Your task to perform on an android device: set an alarm Image 0: 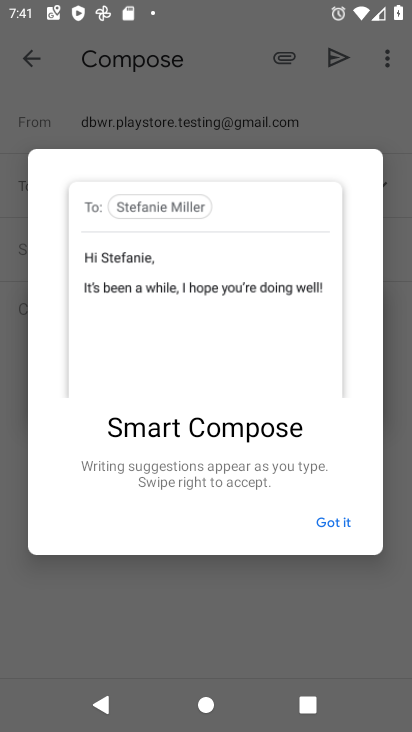
Step 0: press home button
Your task to perform on an android device: set an alarm Image 1: 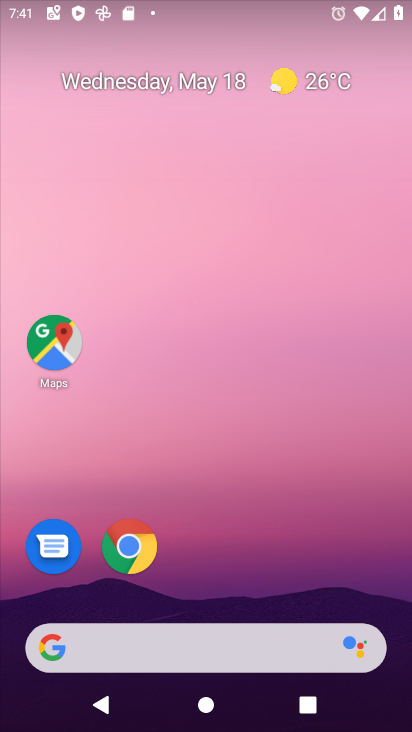
Step 1: drag from (391, 622) to (306, 88)
Your task to perform on an android device: set an alarm Image 2: 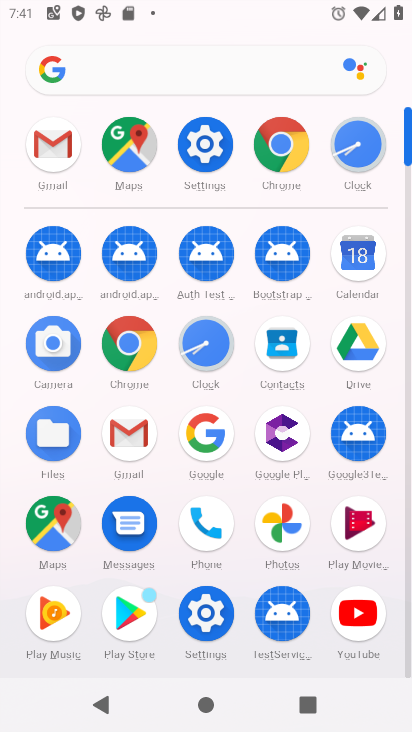
Step 2: click (202, 334)
Your task to perform on an android device: set an alarm Image 3: 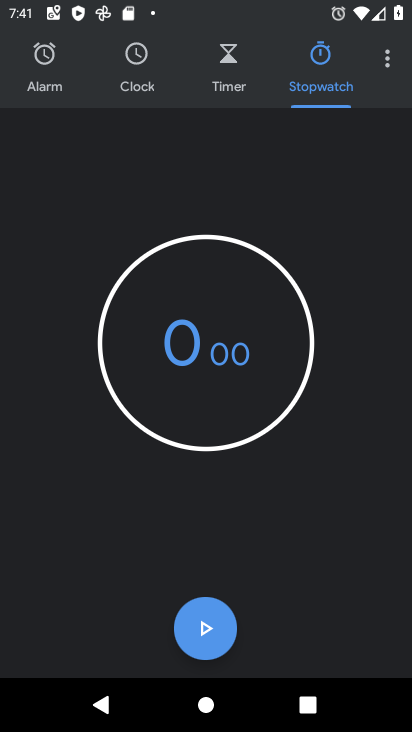
Step 3: click (45, 44)
Your task to perform on an android device: set an alarm Image 4: 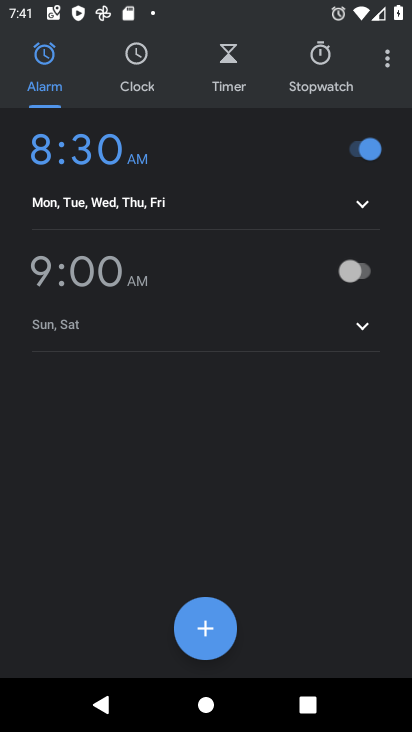
Step 4: click (361, 276)
Your task to perform on an android device: set an alarm Image 5: 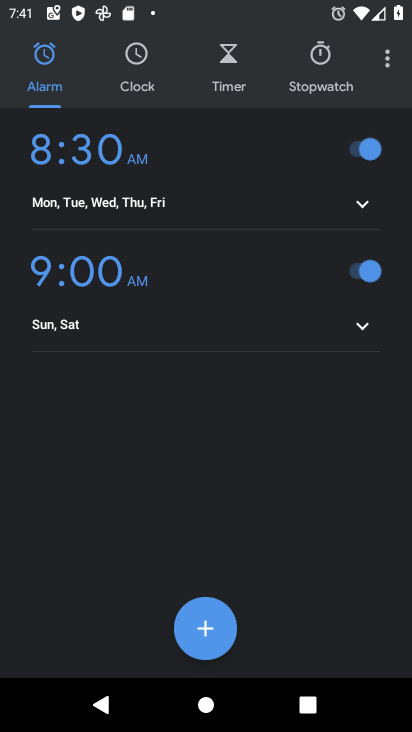
Step 5: task complete